Your task to perform on an android device: turn off translation in the chrome app Image 0: 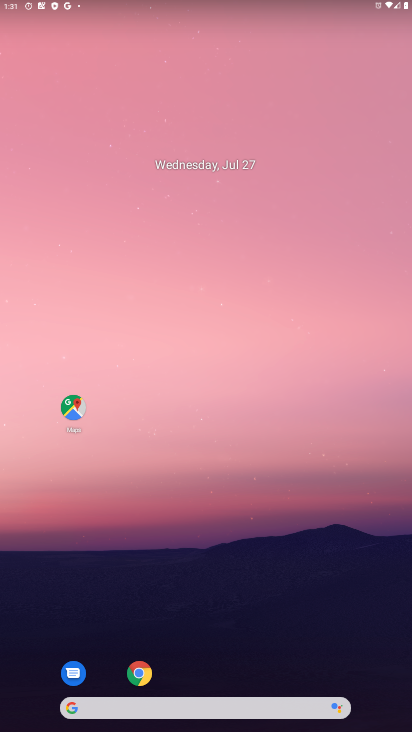
Step 0: click (142, 674)
Your task to perform on an android device: turn off translation in the chrome app Image 1: 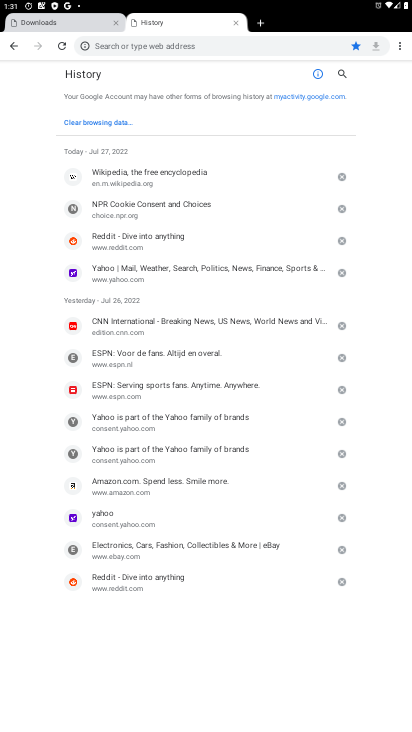
Step 1: drag from (403, 43) to (309, 215)
Your task to perform on an android device: turn off translation in the chrome app Image 2: 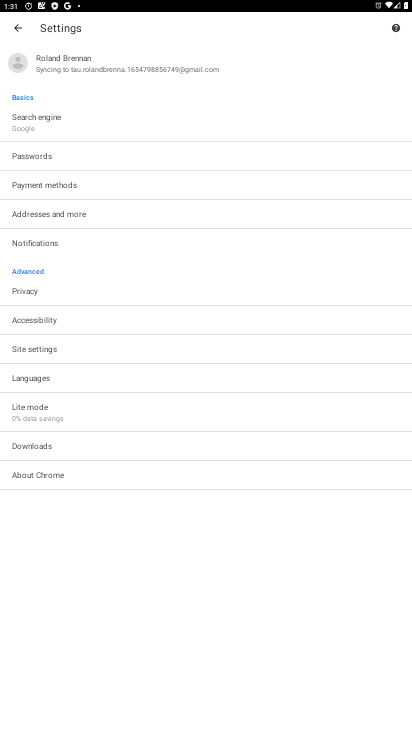
Step 2: click (40, 378)
Your task to perform on an android device: turn off translation in the chrome app Image 3: 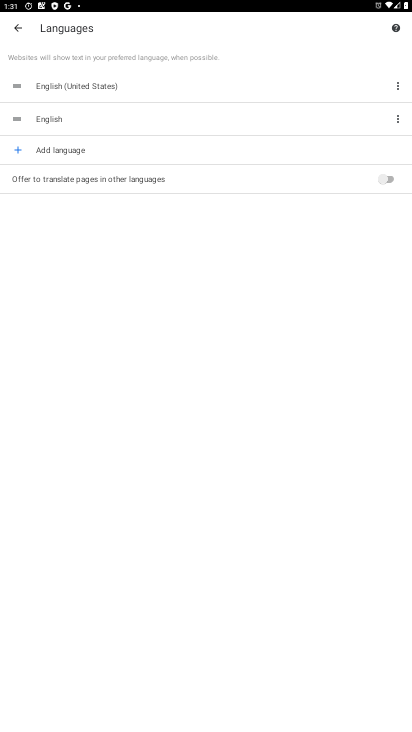
Step 3: task complete